Your task to perform on an android device: add a contact in the contacts app Image 0: 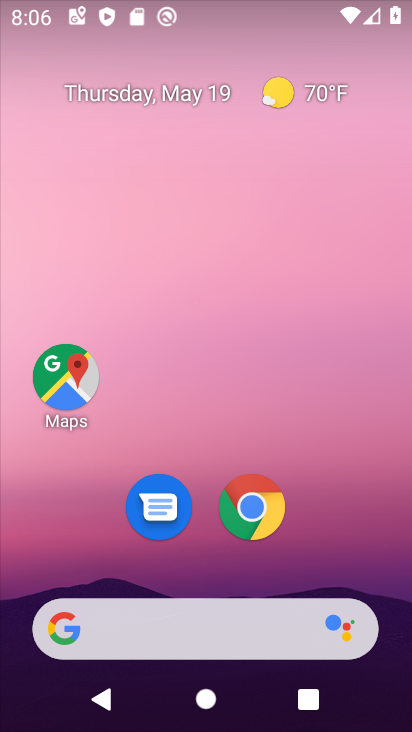
Step 0: drag from (212, 572) to (223, 201)
Your task to perform on an android device: add a contact in the contacts app Image 1: 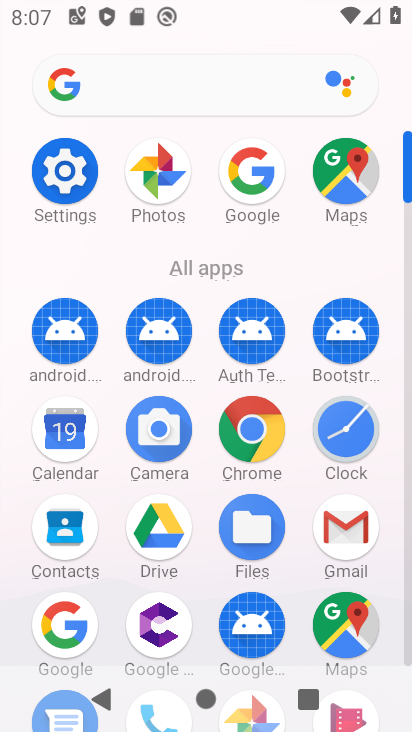
Step 1: click (82, 540)
Your task to perform on an android device: add a contact in the contacts app Image 2: 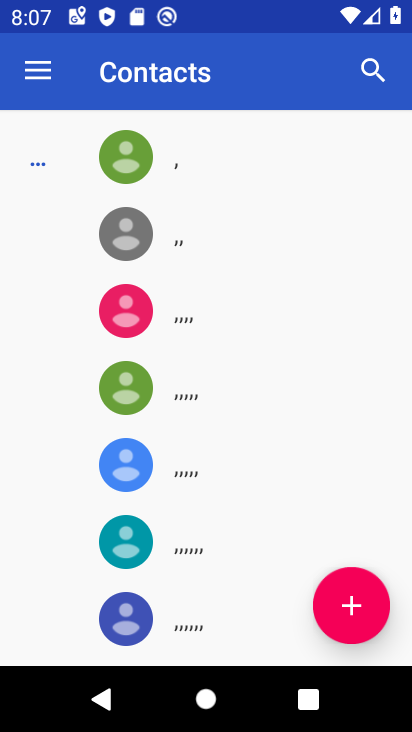
Step 2: click (354, 616)
Your task to perform on an android device: add a contact in the contacts app Image 3: 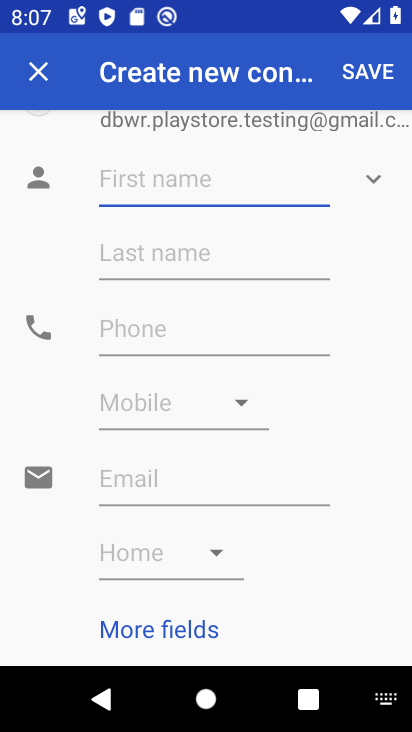
Step 3: type "giugui"
Your task to perform on an android device: add a contact in the contacts app Image 4: 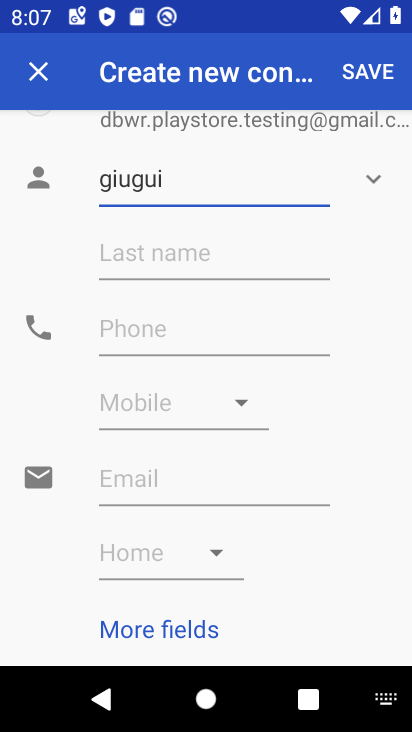
Step 4: click (170, 336)
Your task to perform on an android device: add a contact in the contacts app Image 5: 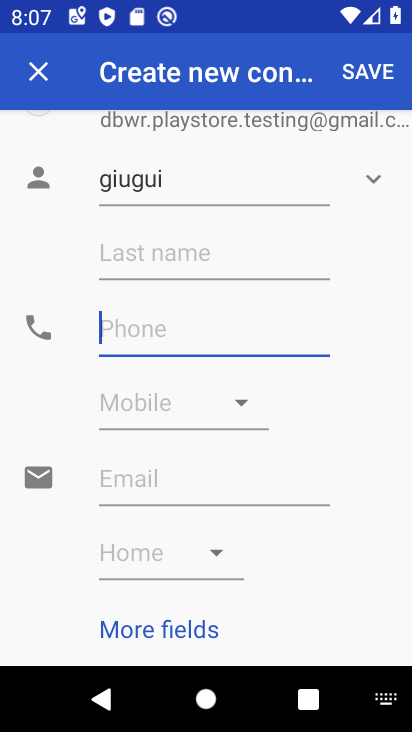
Step 5: type "87664647"
Your task to perform on an android device: add a contact in the contacts app Image 6: 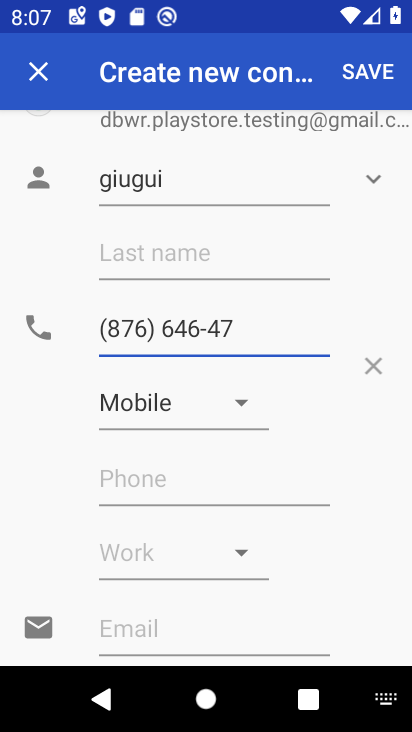
Step 6: click (372, 75)
Your task to perform on an android device: add a contact in the contacts app Image 7: 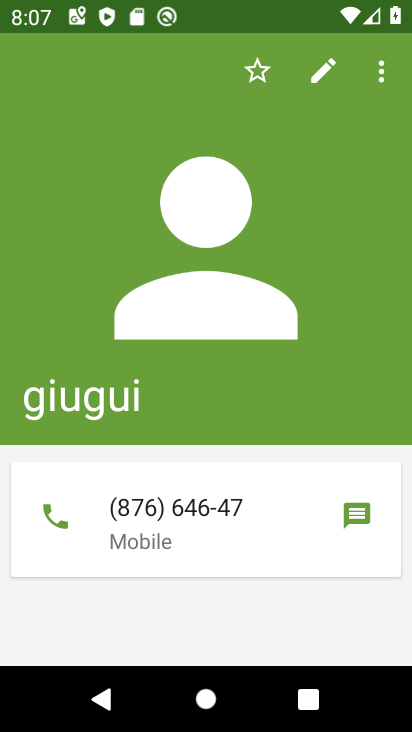
Step 7: task complete